Your task to perform on an android device: Go to Yahoo.com Image 0: 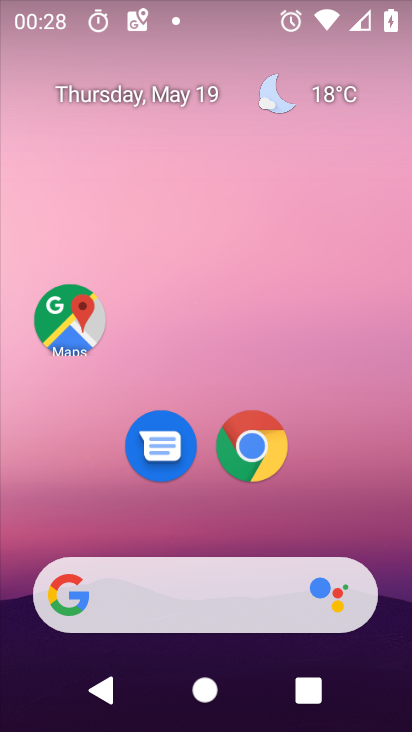
Step 0: press home button
Your task to perform on an android device: Go to Yahoo.com Image 1: 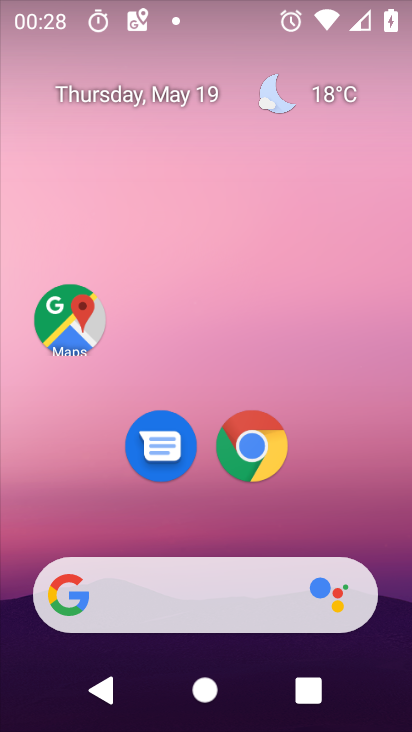
Step 1: click (252, 455)
Your task to perform on an android device: Go to Yahoo.com Image 2: 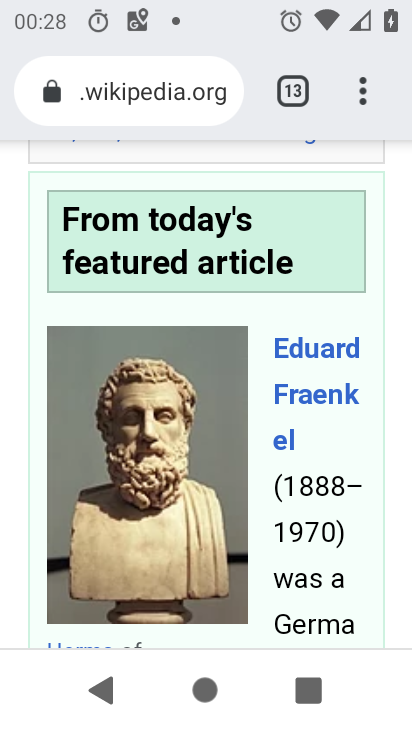
Step 2: drag from (360, 99) to (242, 201)
Your task to perform on an android device: Go to Yahoo.com Image 3: 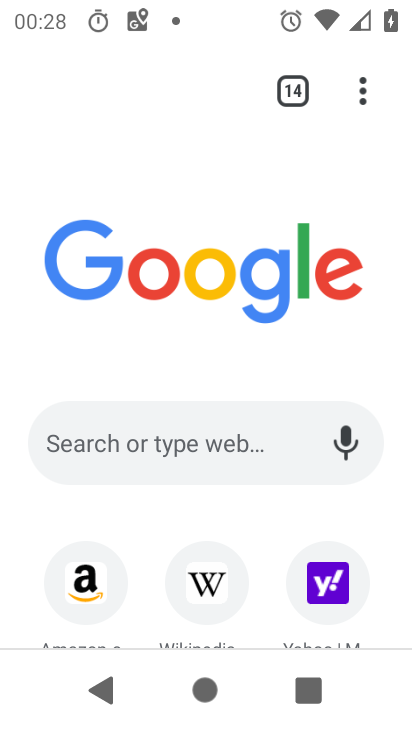
Step 3: drag from (225, 526) to (318, 69)
Your task to perform on an android device: Go to Yahoo.com Image 4: 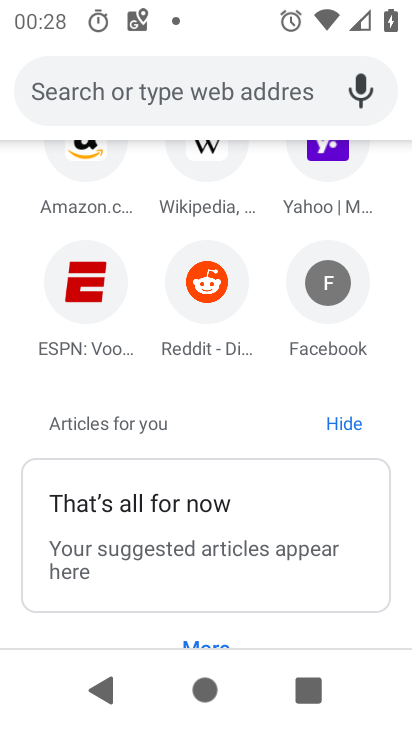
Step 4: drag from (257, 226) to (231, 496)
Your task to perform on an android device: Go to Yahoo.com Image 5: 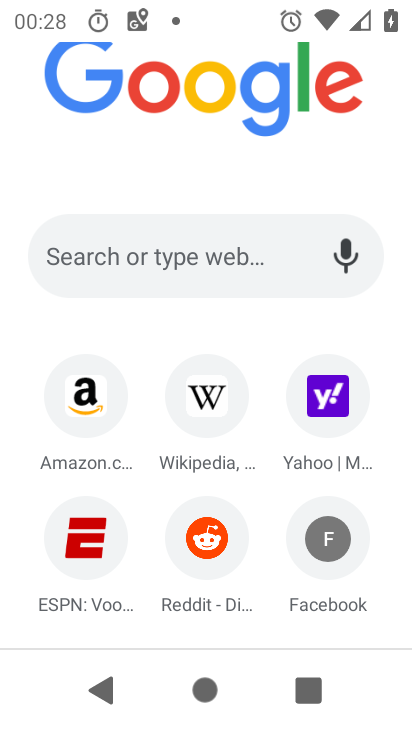
Step 5: click (336, 398)
Your task to perform on an android device: Go to Yahoo.com Image 6: 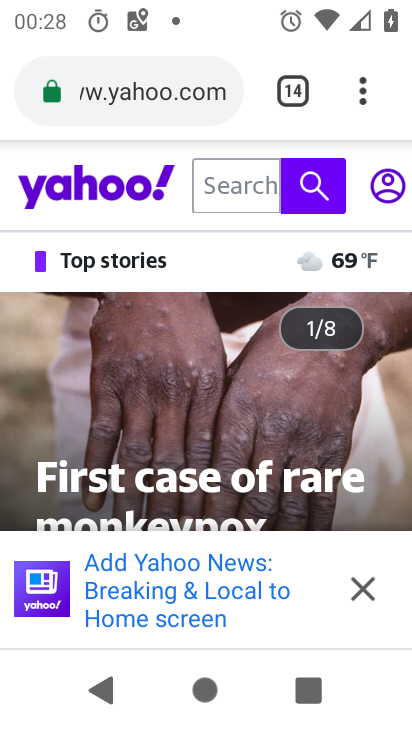
Step 6: task complete